Your task to perform on an android device: check the backup settings in the google photos Image 0: 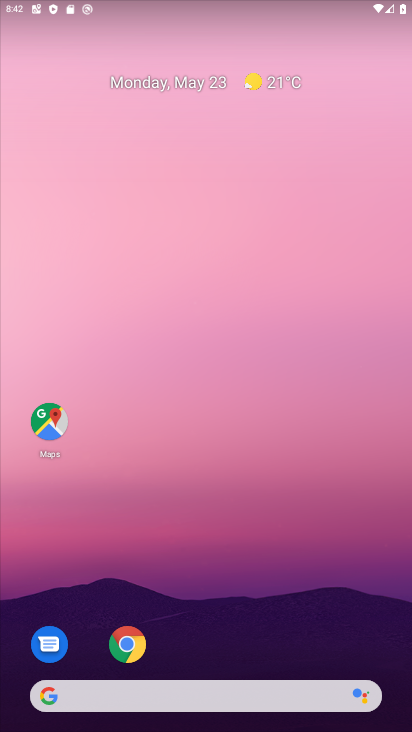
Step 0: drag from (216, 679) to (142, 299)
Your task to perform on an android device: check the backup settings in the google photos Image 1: 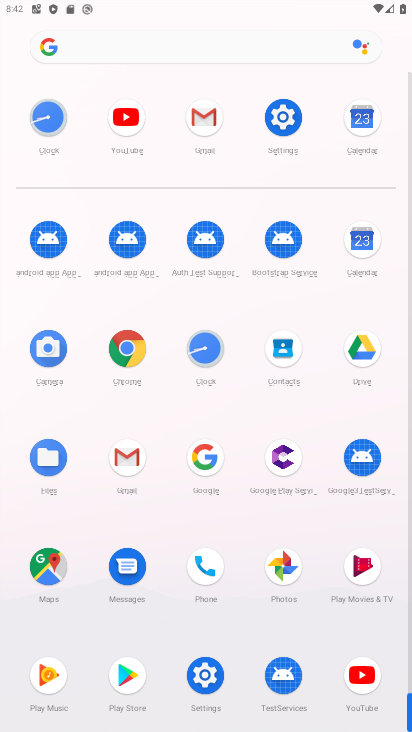
Step 1: click (280, 569)
Your task to perform on an android device: check the backup settings in the google photos Image 2: 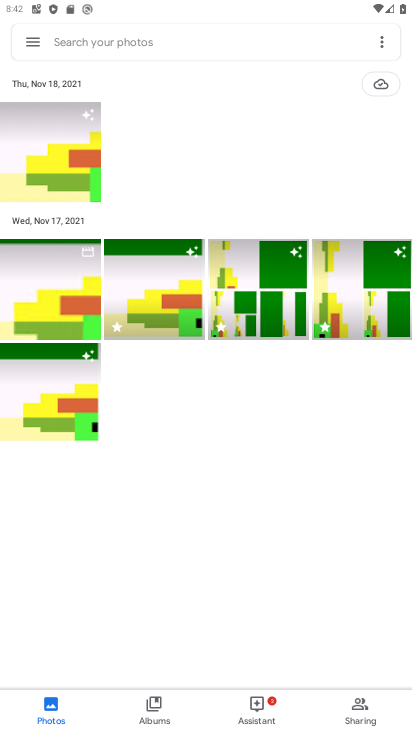
Step 2: click (39, 36)
Your task to perform on an android device: check the backup settings in the google photos Image 3: 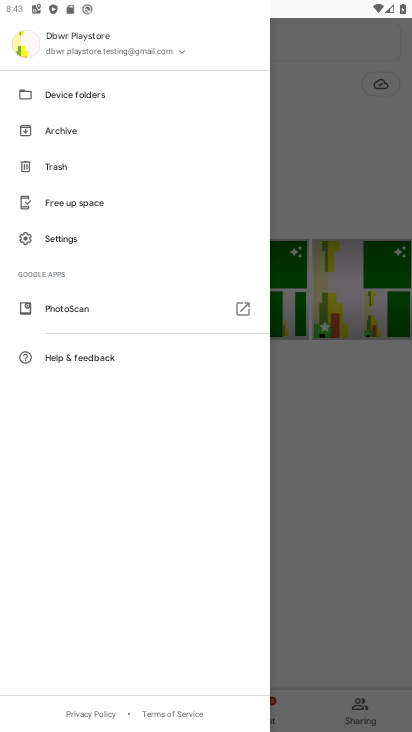
Step 3: click (93, 240)
Your task to perform on an android device: check the backup settings in the google photos Image 4: 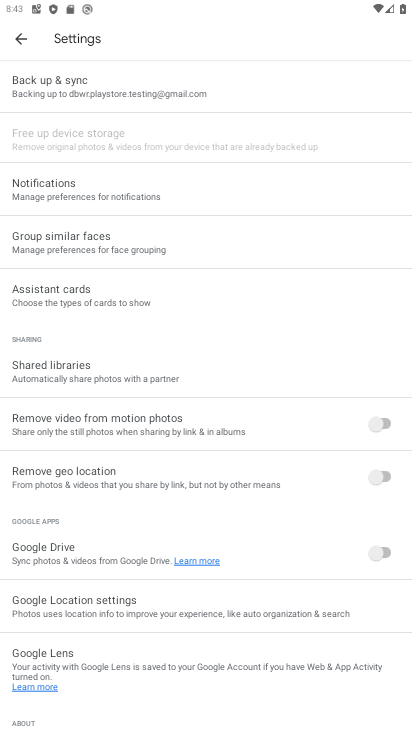
Step 4: click (257, 90)
Your task to perform on an android device: check the backup settings in the google photos Image 5: 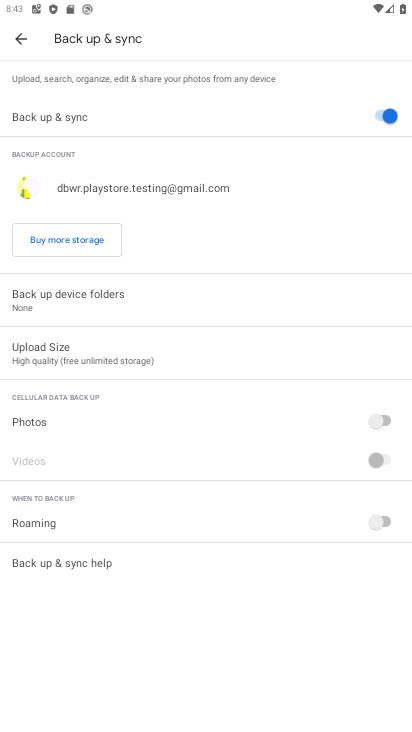
Step 5: task complete